Your task to perform on an android device: toggle sleep mode Image 0: 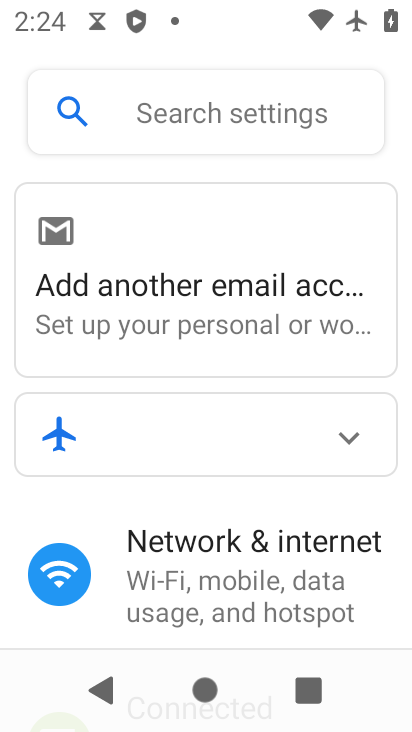
Step 0: drag from (287, 560) to (282, 383)
Your task to perform on an android device: toggle sleep mode Image 1: 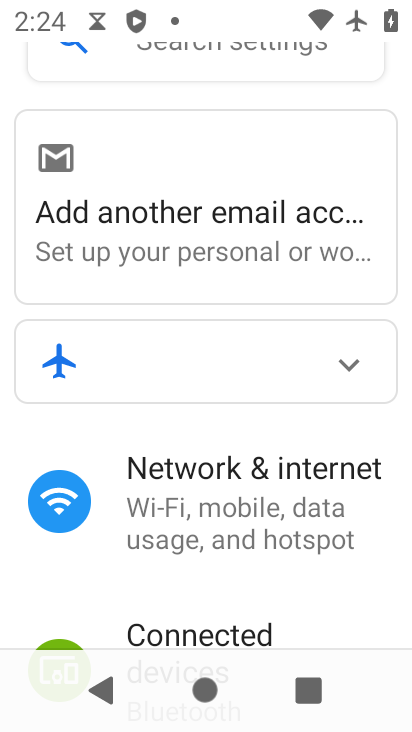
Step 1: drag from (267, 565) to (276, 377)
Your task to perform on an android device: toggle sleep mode Image 2: 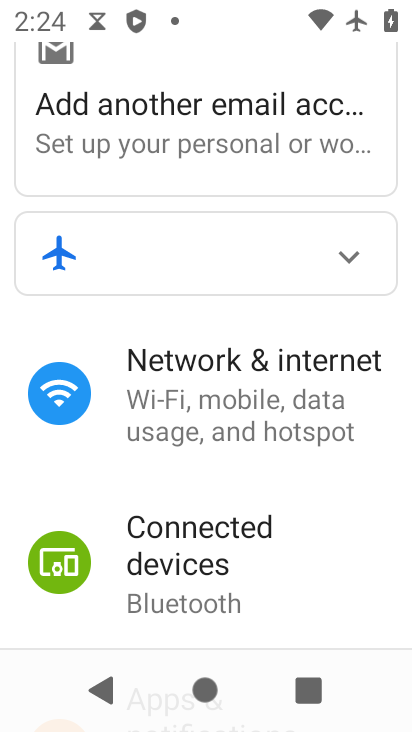
Step 2: drag from (269, 476) to (274, 322)
Your task to perform on an android device: toggle sleep mode Image 3: 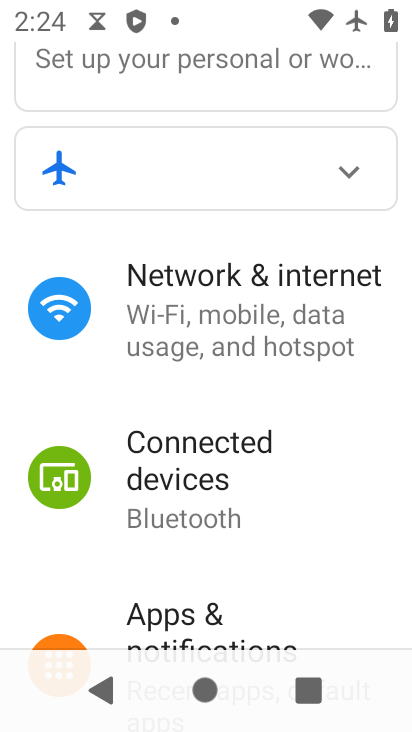
Step 3: drag from (270, 498) to (262, 377)
Your task to perform on an android device: toggle sleep mode Image 4: 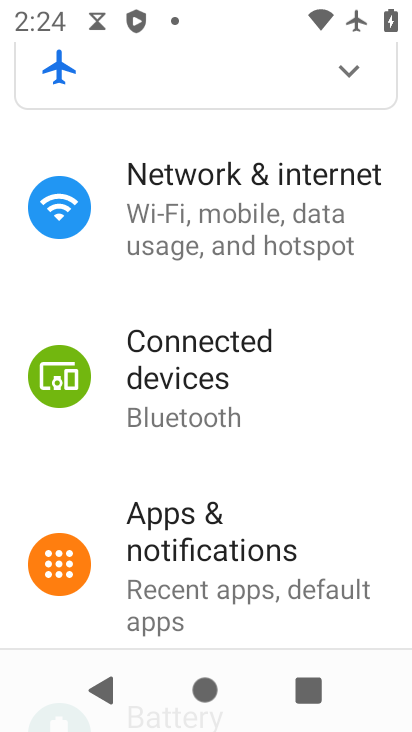
Step 4: drag from (252, 505) to (245, 380)
Your task to perform on an android device: toggle sleep mode Image 5: 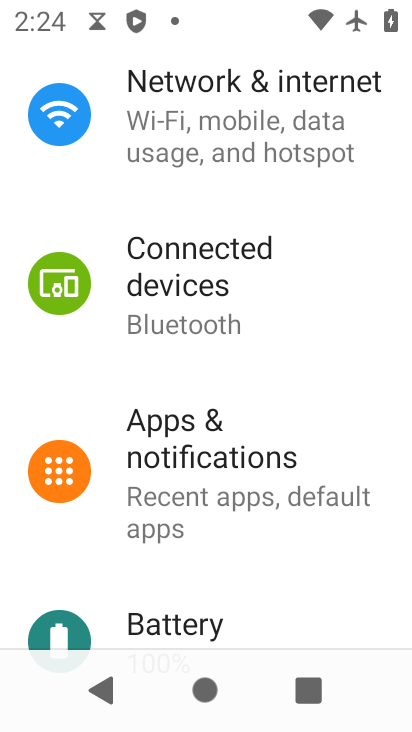
Step 5: drag from (267, 490) to (268, 357)
Your task to perform on an android device: toggle sleep mode Image 6: 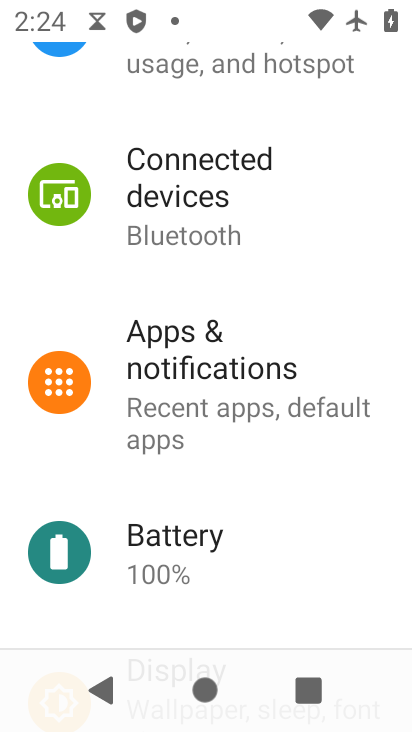
Step 6: drag from (269, 508) to (270, 393)
Your task to perform on an android device: toggle sleep mode Image 7: 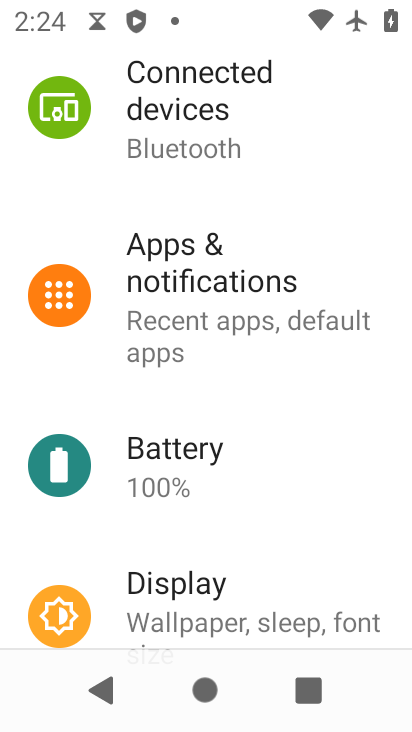
Step 7: drag from (266, 515) to (272, 377)
Your task to perform on an android device: toggle sleep mode Image 8: 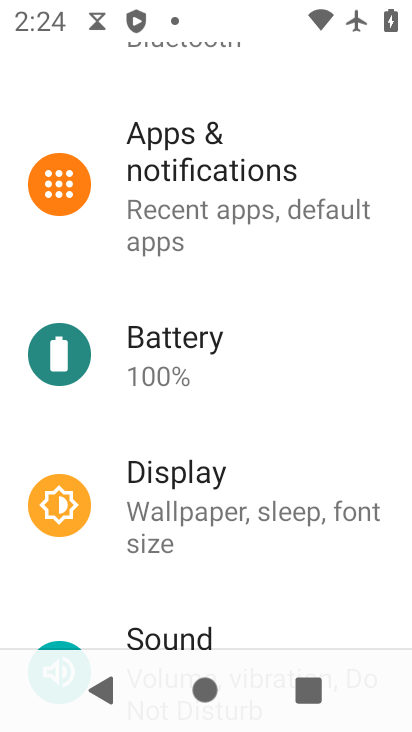
Step 8: drag from (306, 518) to (332, 386)
Your task to perform on an android device: toggle sleep mode Image 9: 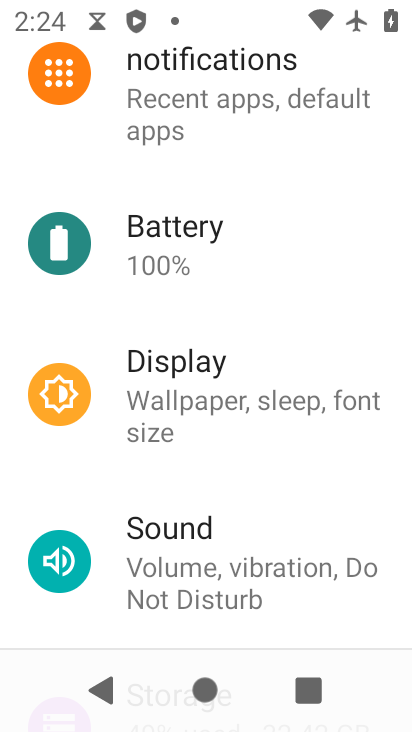
Step 9: drag from (330, 534) to (327, 420)
Your task to perform on an android device: toggle sleep mode Image 10: 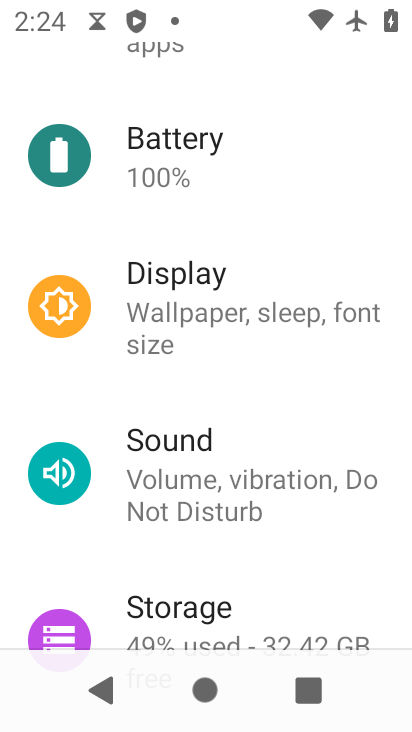
Step 10: drag from (353, 527) to (353, 431)
Your task to perform on an android device: toggle sleep mode Image 11: 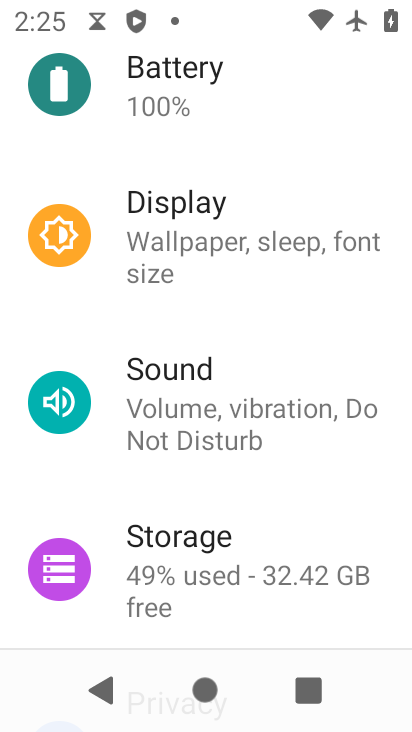
Step 11: drag from (343, 538) to (344, 428)
Your task to perform on an android device: toggle sleep mode Image 12: 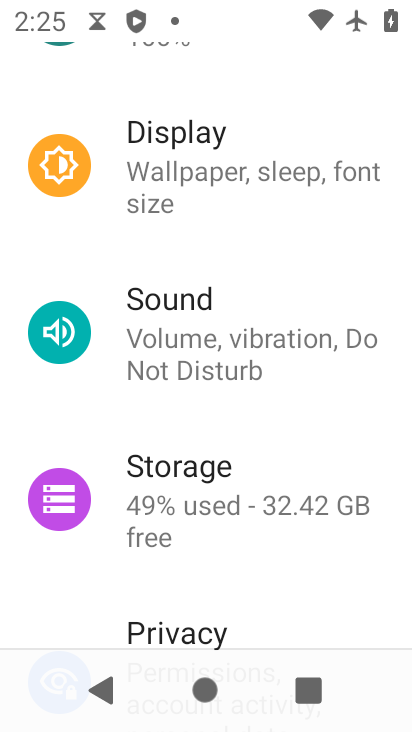
Step 12: drag from (348, 541) to (350, 436)
Your task to perform on an android device: toggle sleep mode Image 13: 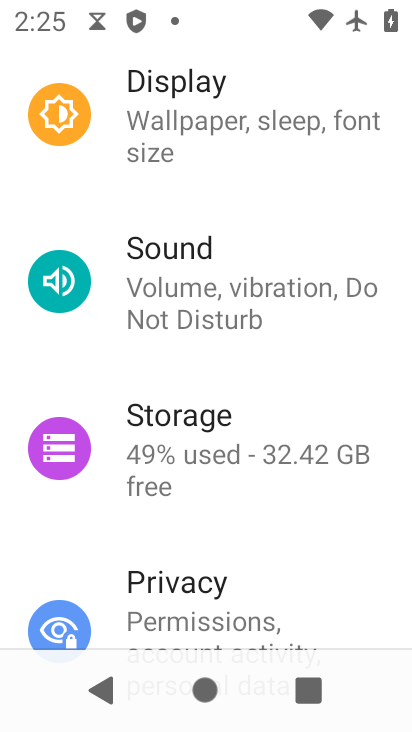
Step 13: drag from (337, 559) to (347, 438)
Your task to perform on an android device: toggle sleep mode Image 14: 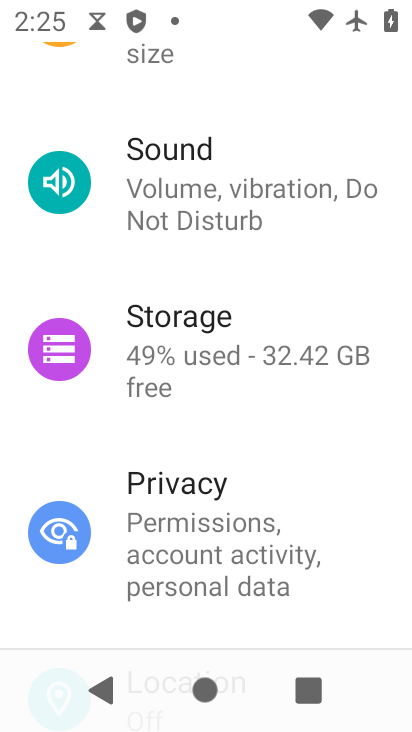
Step 14: drag from (325, 563) to (328, 445)
Your task to perform on an android device: toggle sleep mode Image 15: 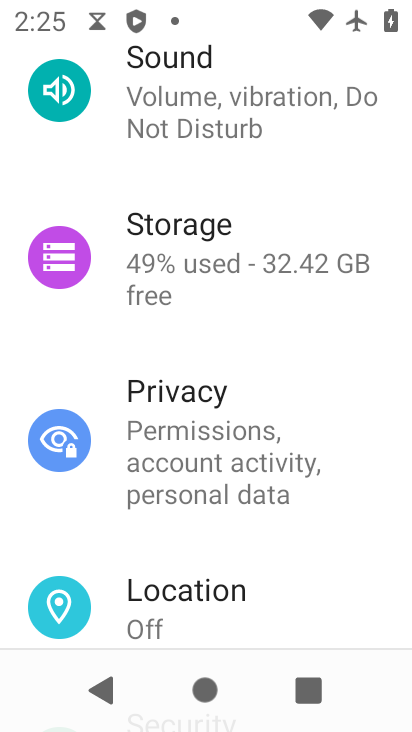
Step 15: drag from (314, 517) to (309, 437)
Your task to perform on an android device: toggle sleep mode Image 16: 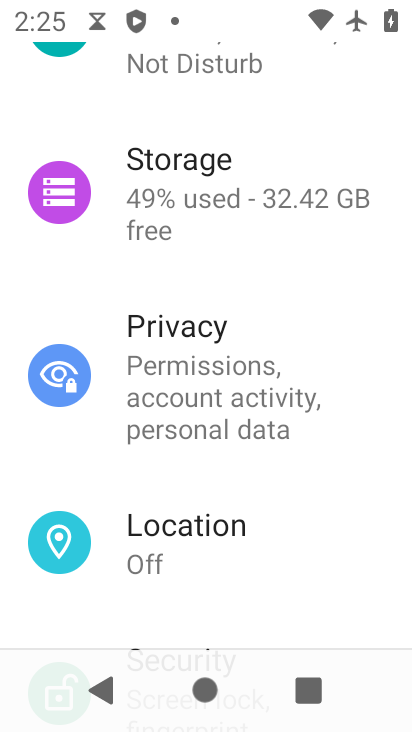
Step 16: drag from (290, 546) to (288, 423)
Your task to perform on an android device: toggle sleep mode Image 17: 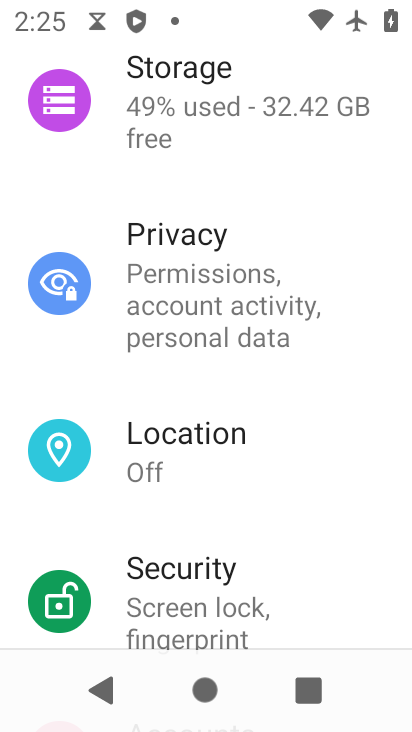
Step 17: drag from (303, 532) to (298, 424)
Your task to perform on an android device: toggle sleep mode Image 18: 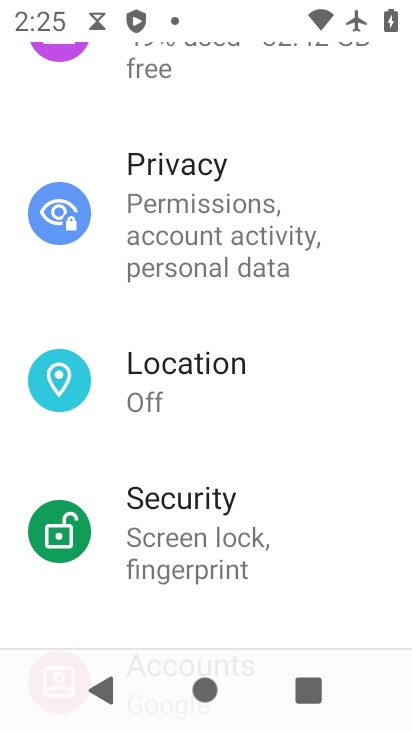
Step 18: drag from (299, 512) to (302, 429)
Your task to perform on an android device: toggle sleep mode Image 19: 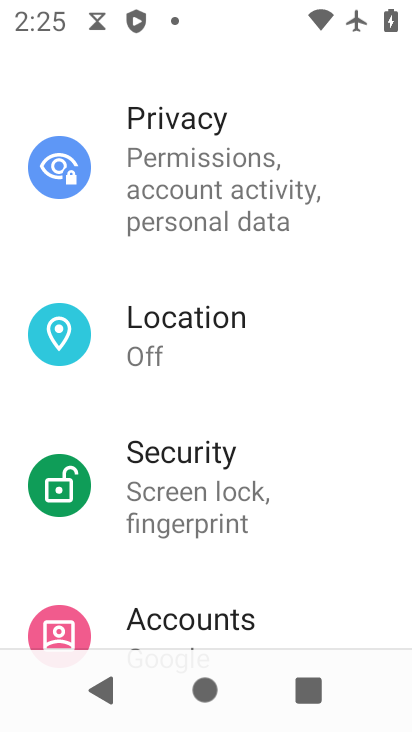
Step 19: drag from (314, 536) to (310, 411)
Your task to perform on an android device: toggle sleep mode Image 20: 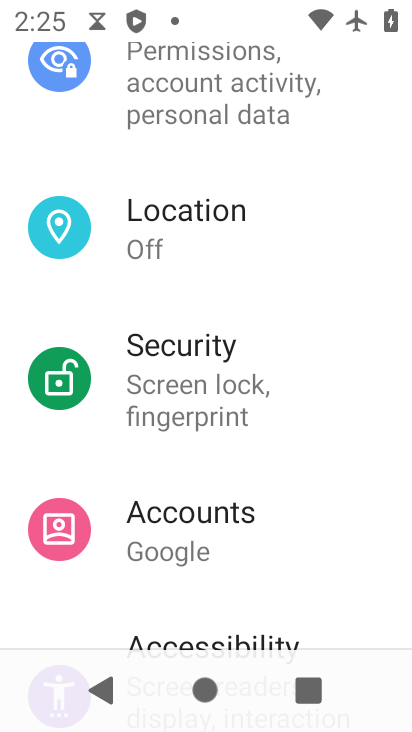
Step 20: drag from (302, 510) to (305, 414)
Your task to perform on an android device: toggle sleep mode Image 21: 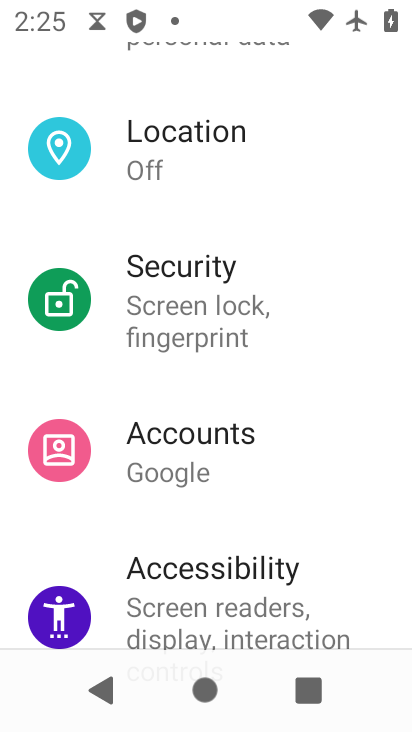
Step 21: drag from (300, 498) to (292, 385)
Your task to perform on an android device: toggle sleep mode Image 22: 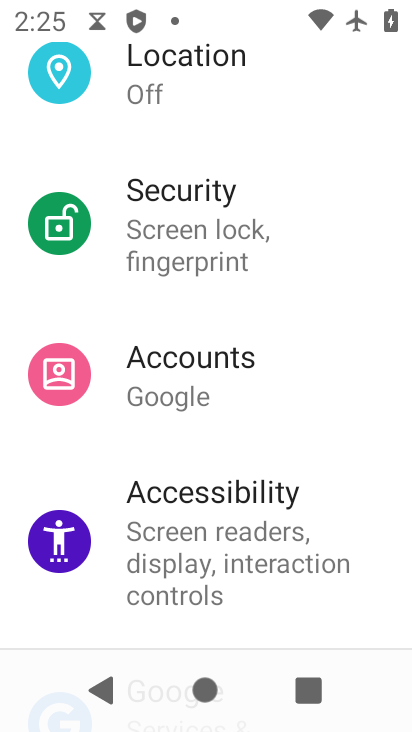
Step 22: drag from (292, 510) to (300, 391)
Your task to perform on an android device: toggle sleep mode Image 23: 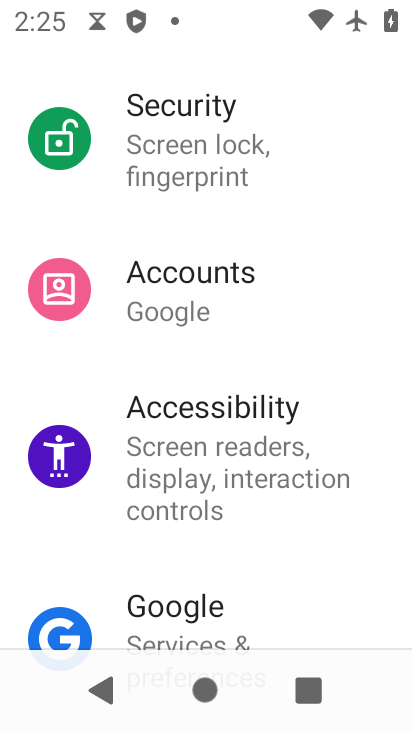
Step 23: click (266, 409)
Your task to perform on an android device: toggle sleep mode Image 24: 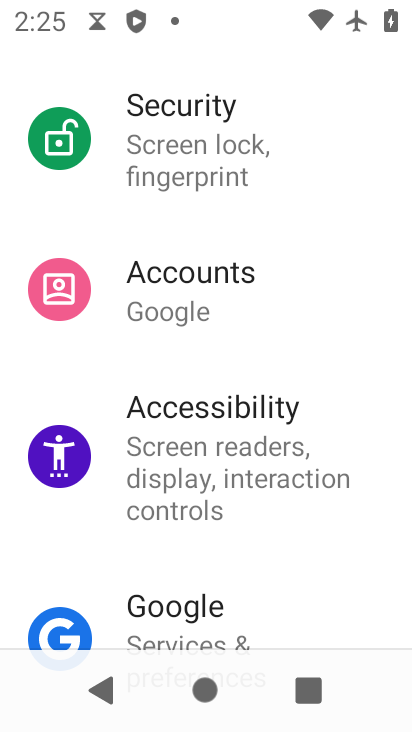
Step 24: drag from (266, 473) to (260, 327)
Your task to perform on an android device: toggle sleep mode Image 25: 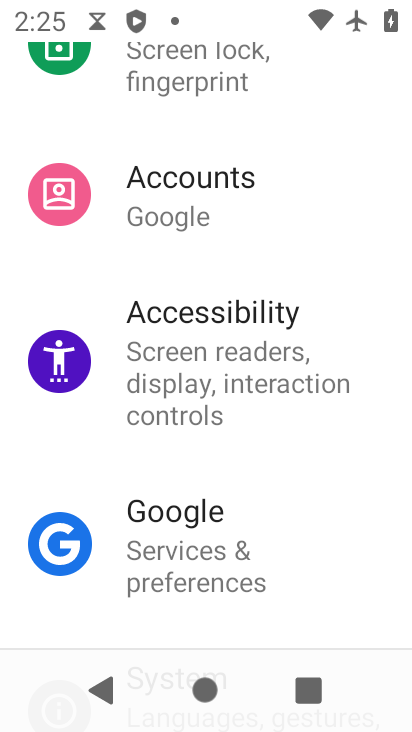
Step 25: drag from (249, 433) to (264, 316)
Your task to perform on an android device: toggle sleep mode Image 26: 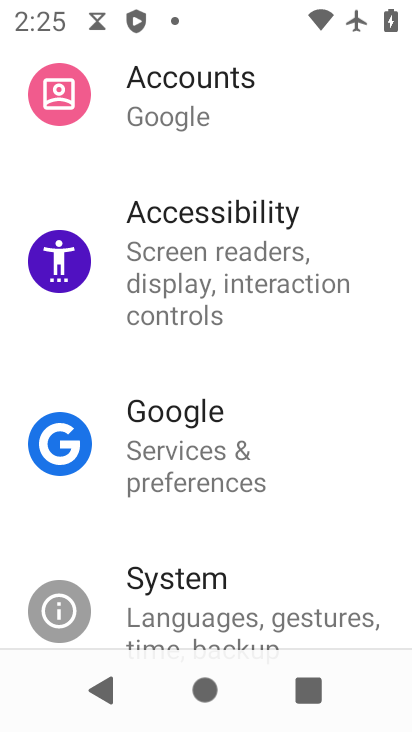
Step 26: drag from (262, 378) to (273, 272)
Your task to perform on an android device: toggle sleep mode Image 27: 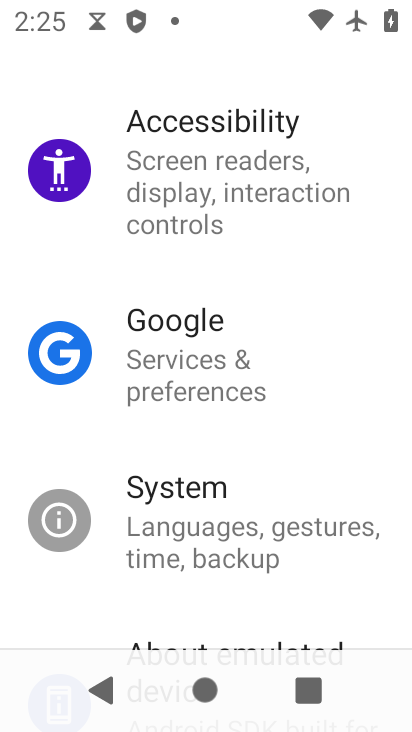
Step 27: drag from (259, 480) to (277, 297)
Your task to perform on an android device: toggle sleep mode Image 28: 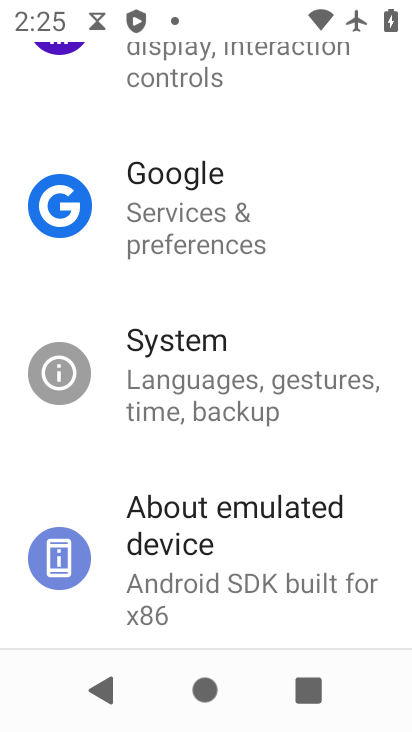
Step 28: drag from (286, 449) to (303, 305)
Your task to perform on an android device: toggle sleep mode Image 29: 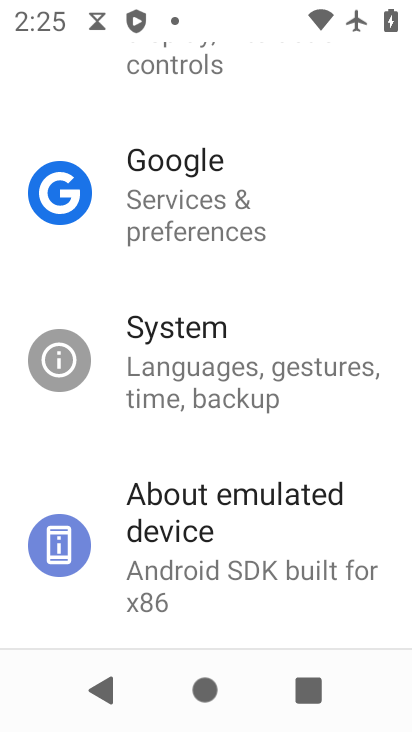
Step 29: drag from (288, 351) to (281, 592)
Your task to perform on an android device: toggle sleep mode Image 30: 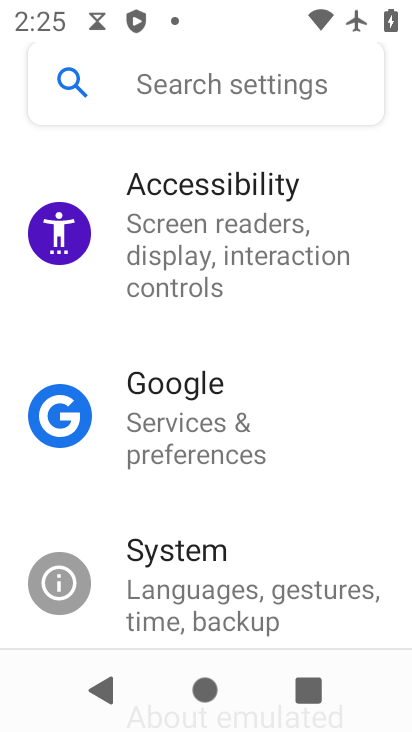
Step 30: drag from (250, 294) to (249, 552)
Your task to perform on an android device: toggle sleep mode Image 31: 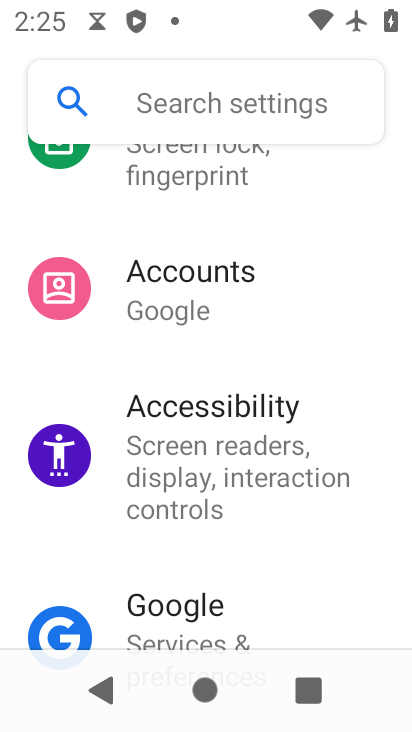
Step 31: drag from (282, 438) to (272, 615)
Your task to perform on an android device: toggle sleep mode Image 32: 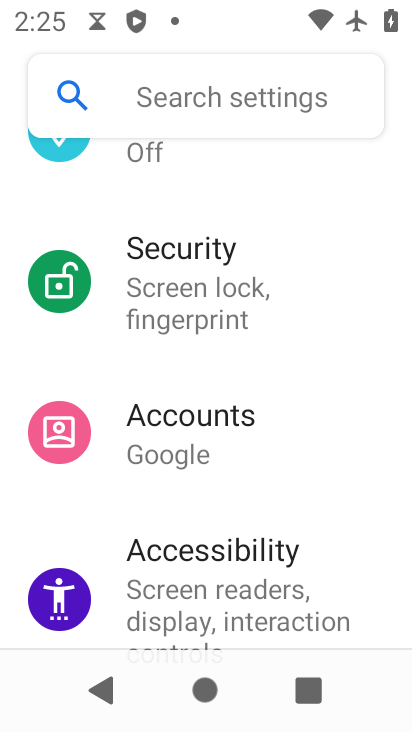
Step 32: drag from (280, 337) to (278, 585)
Your task to perform on an android device: toggle sleep mode Image 33: 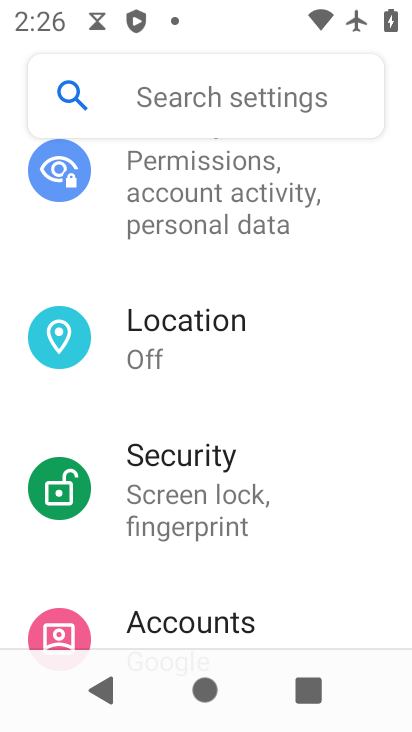
Step 33: drag from (290, 381) to (278, 606)
Your task to perform on an android device: toggle sleep mode Image 34: 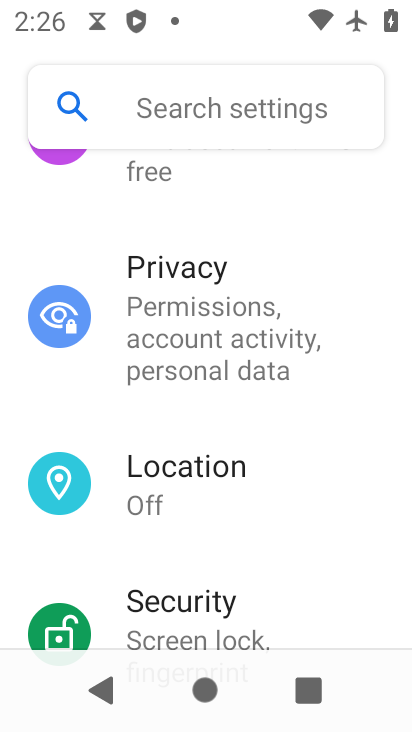
Step 34: drag from (333, 423) to (341, 561)
Your task to perform on an android device: toggle sleep mode Image 35: 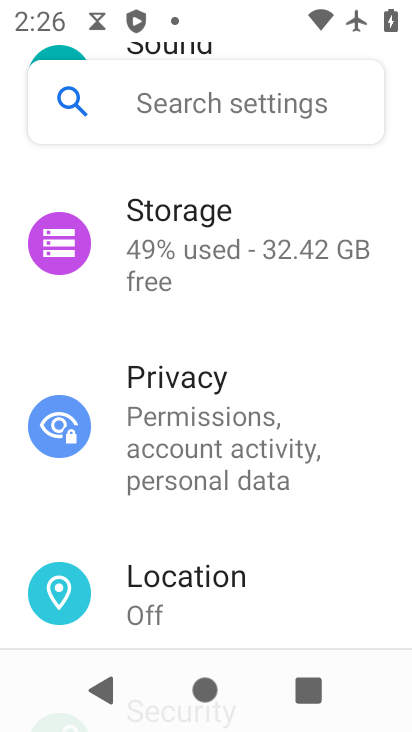
Step 35: drag from (344, 439) to (326, 613)
Your task to perform on an android device: toggle sleep mode Image 36: 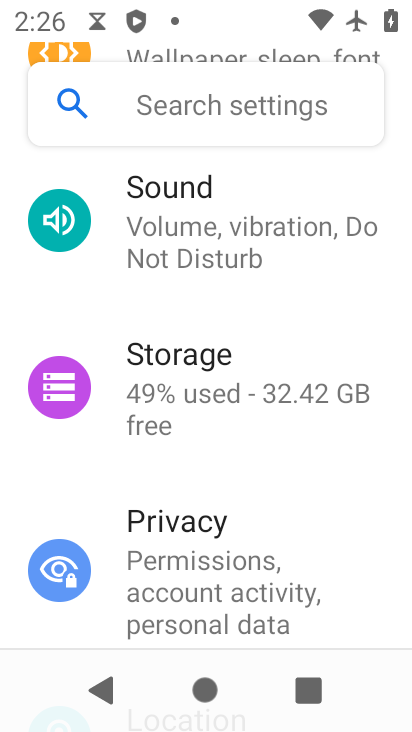
Step 36: drag from (238, 288) to (235, 565)
Your task to perform on an android device: toggle sleep mode Image 37: 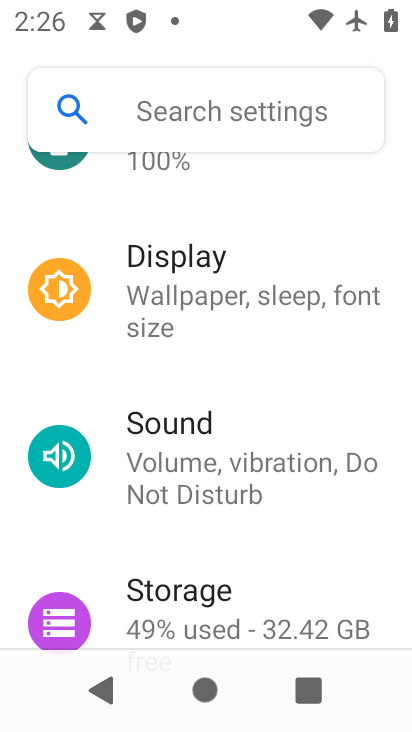
Step 37: click (215, 337)
Your task to perform on an android device: toggle sleep mode Image 38: 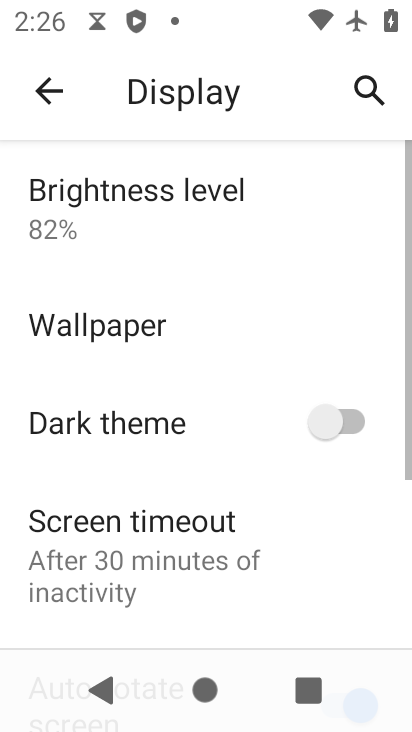
Step 38: drag from (236, 570) to (241, 280)
Your task to perform on an android device: toggle sleep mode Image 39: 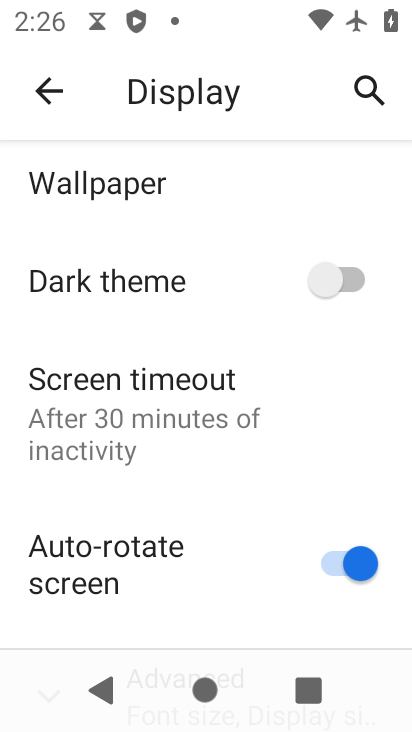
Step 39: drag from (209, 578) to (231, 281)
Your task to perform on an android device: toggle sleep mode Image 40: 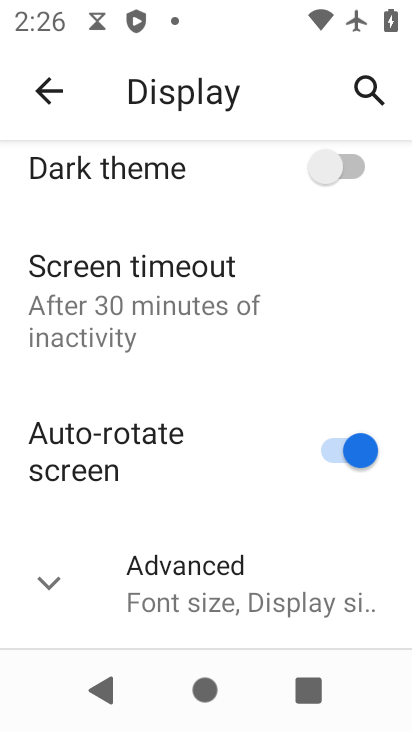
Step 40: click (222, 565)
Your task to perform on an android device: toggle sleep mode Image 41: 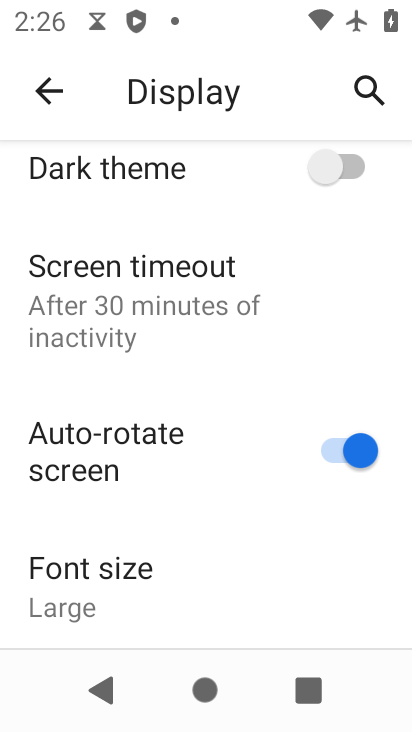
Step 41: task complete